Your task to perform on an android device: open app "Airtel Thanks" Image 0: 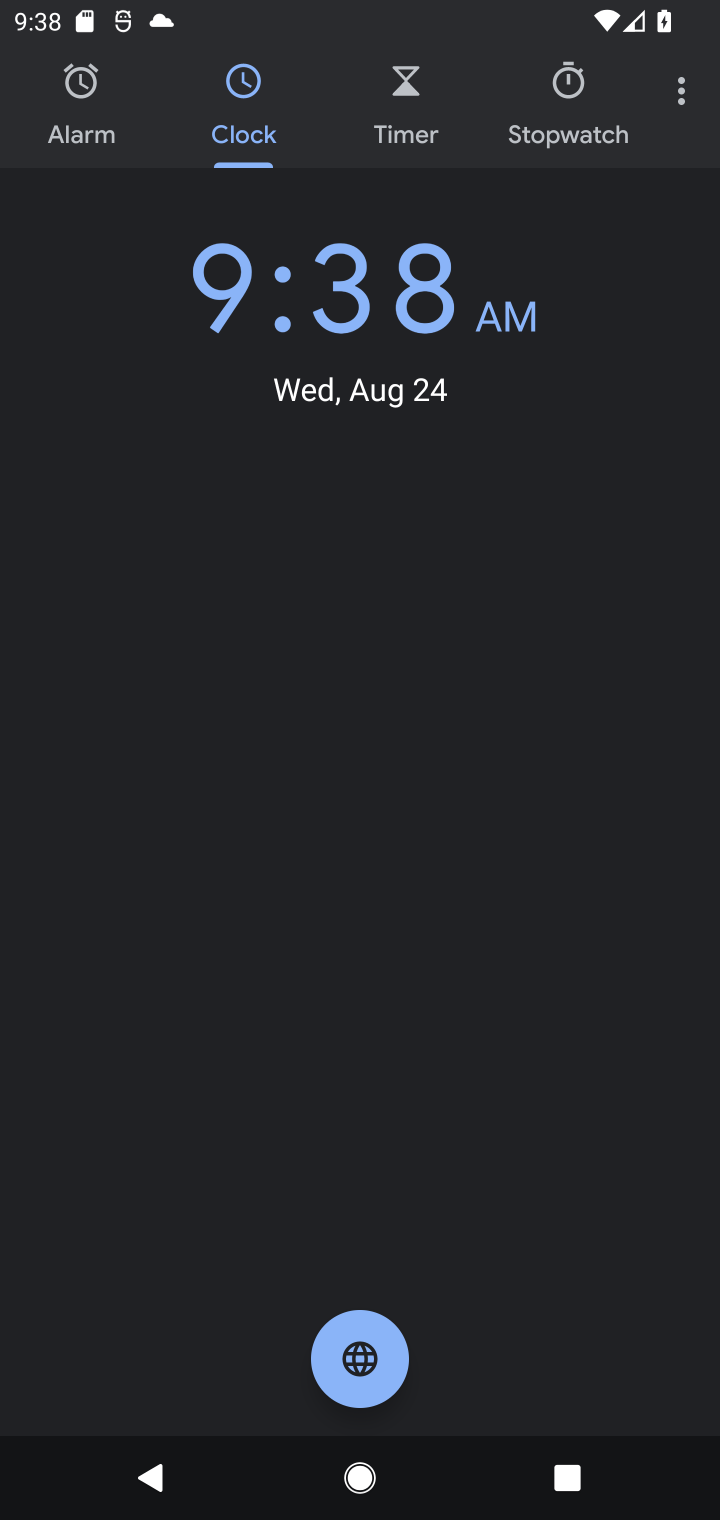
Step 0: press home button
Your task to perform on an android device: open app "Airtel Thanks" Image 1: 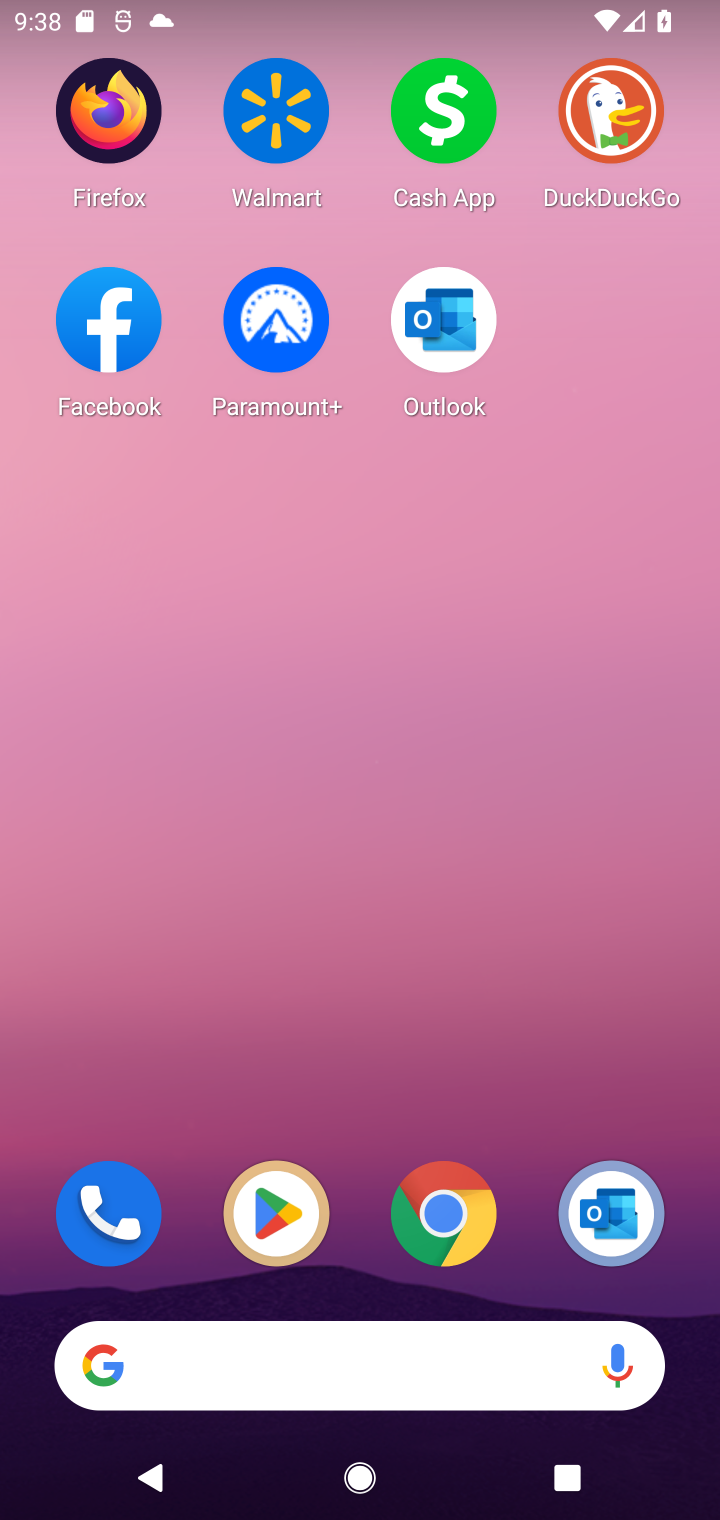
Step 1: click (291, 1220)
Your task to perform on an android device: open app "Airtel Thanks" Image 2: 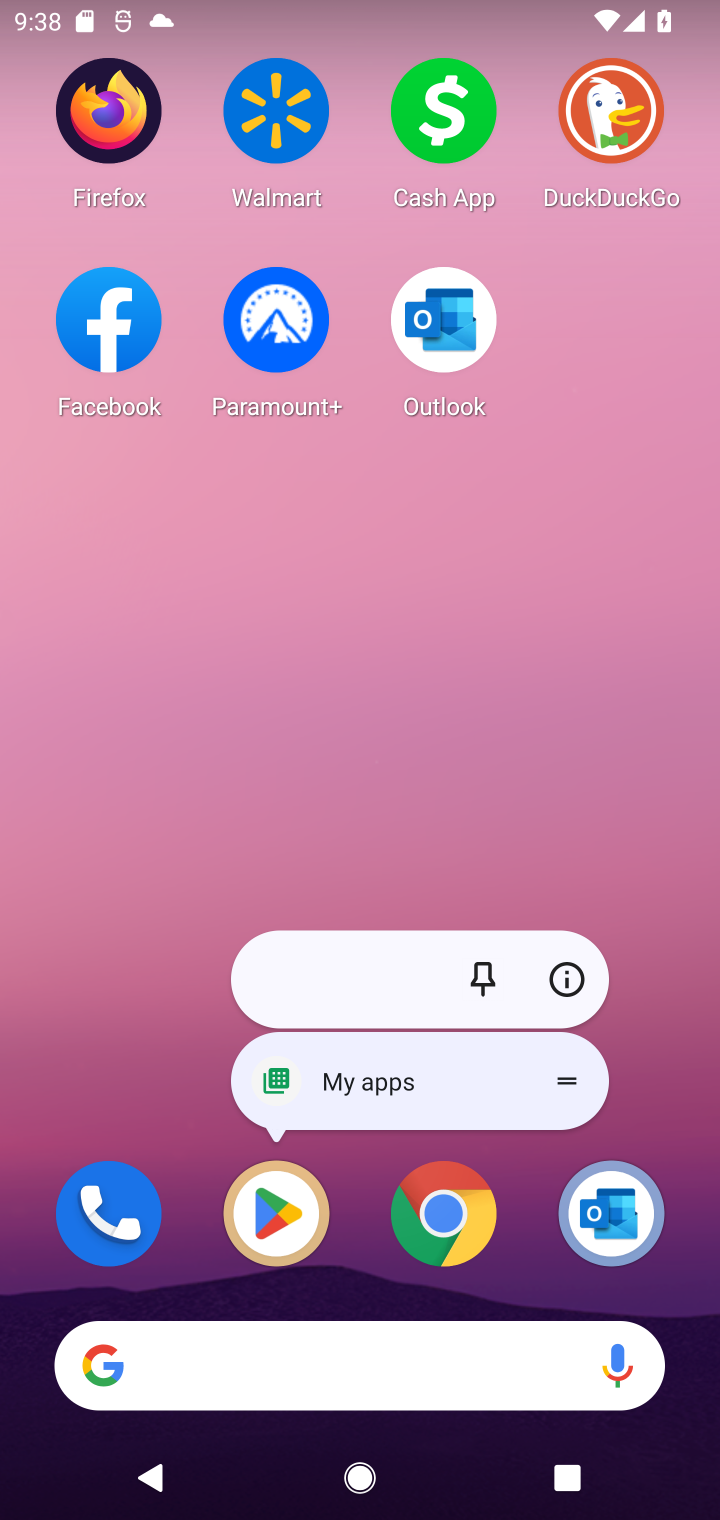
Step 2: click (262, 1207)
Your task to perform on an android device: open app "Airtel Thanks" Image 3: 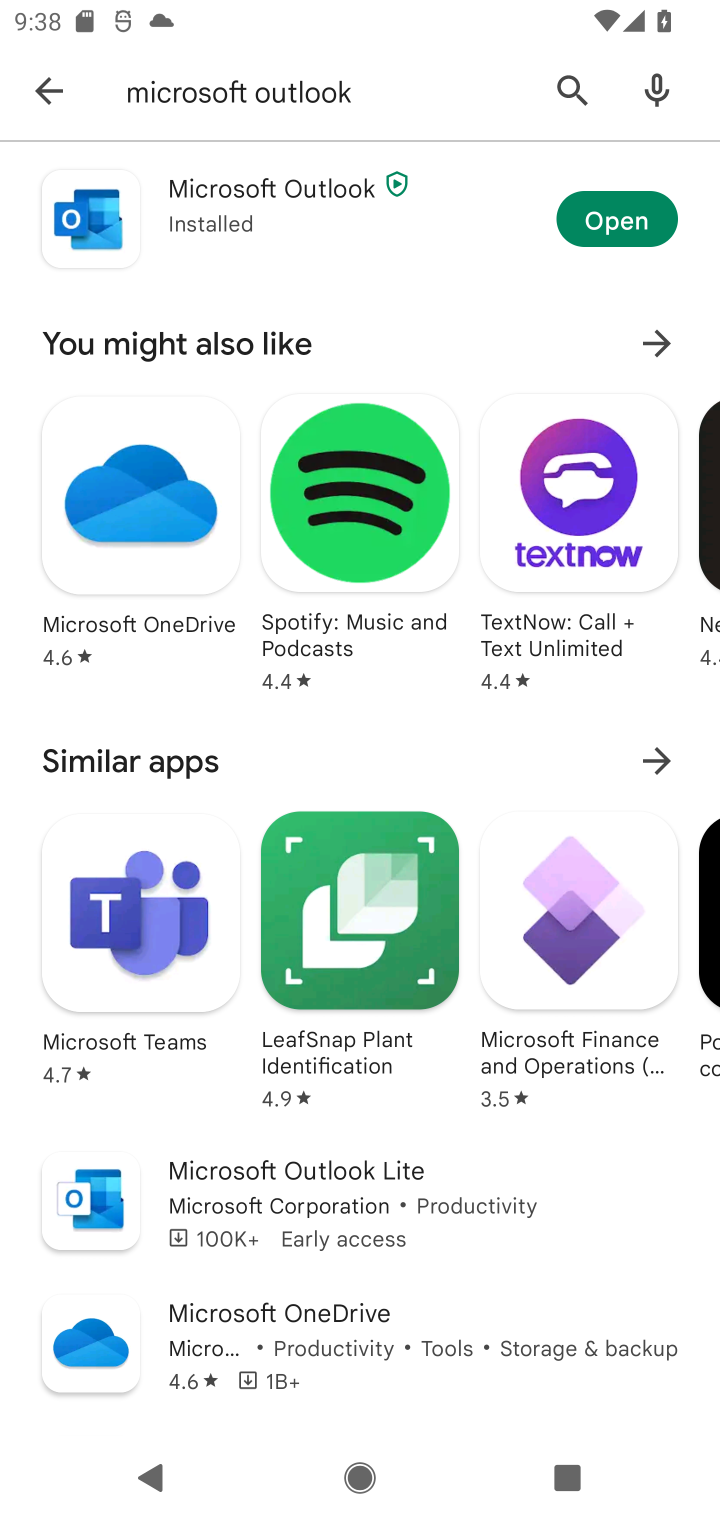
Step 3: click (381, 76)
Your task to perform on an android device: open app "Airtel Thanks" Image 4: 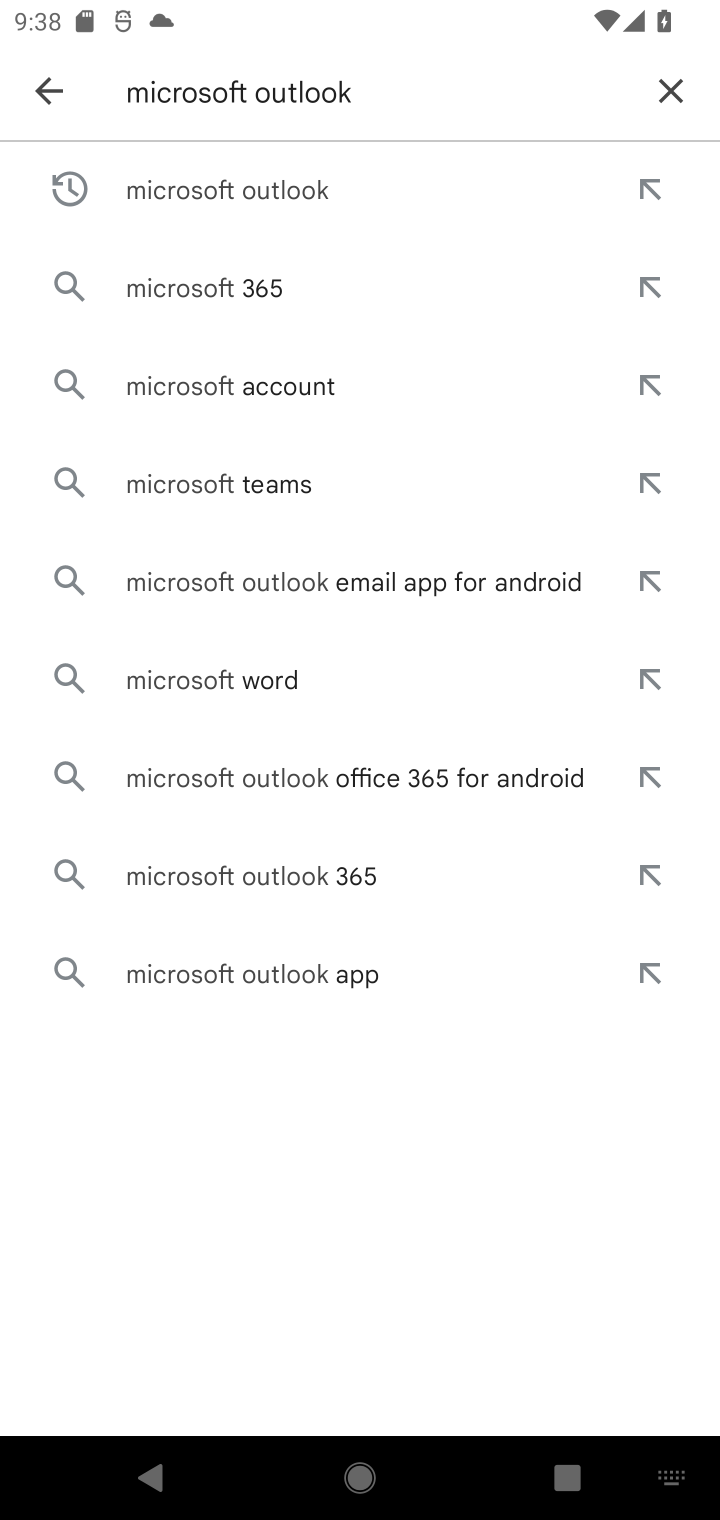
Step 4: click (660, 77)
Your task to perform on an android device: open app "Airtel Thanks" Image 5: 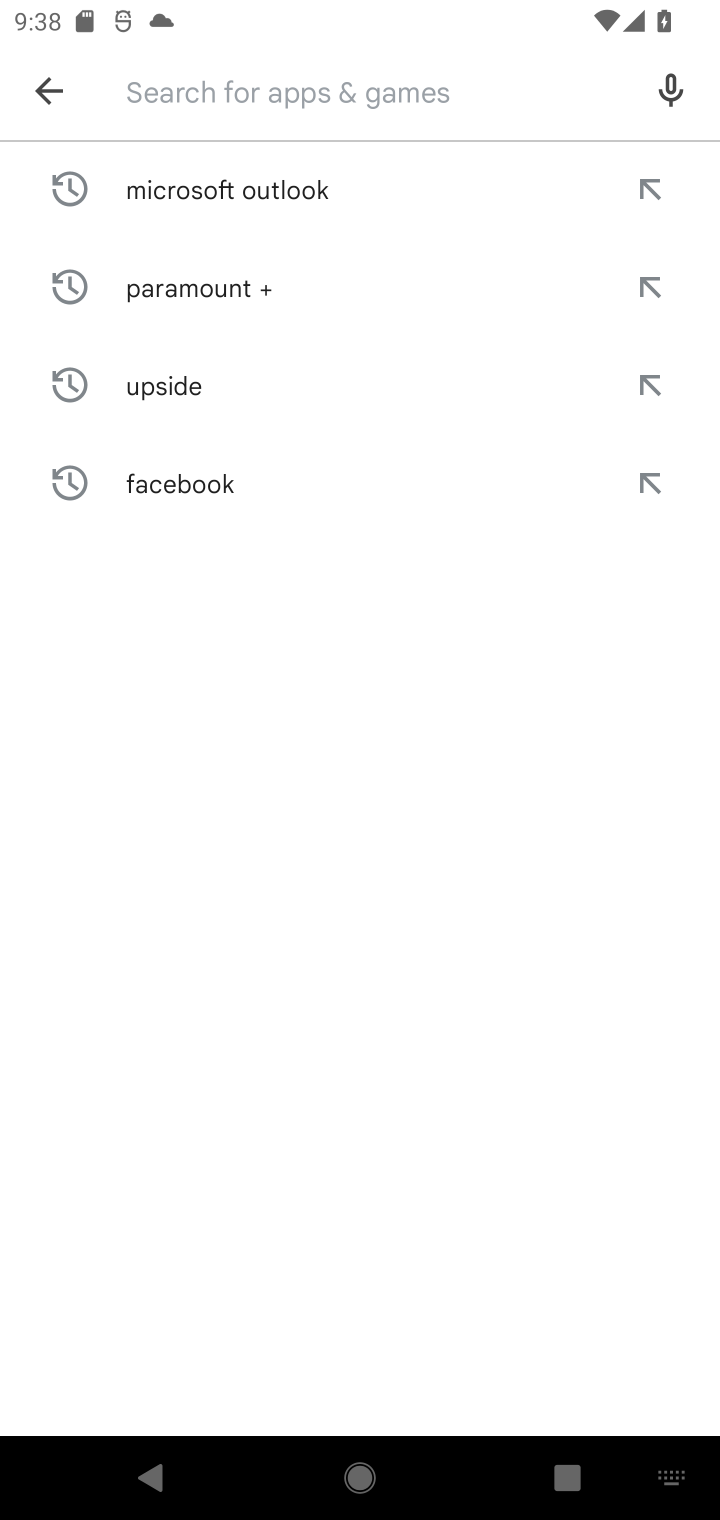
Step 5: type "Airtel Thanks"
Your task to perform on an android device: open app "Airtel Thanks" Image 6: 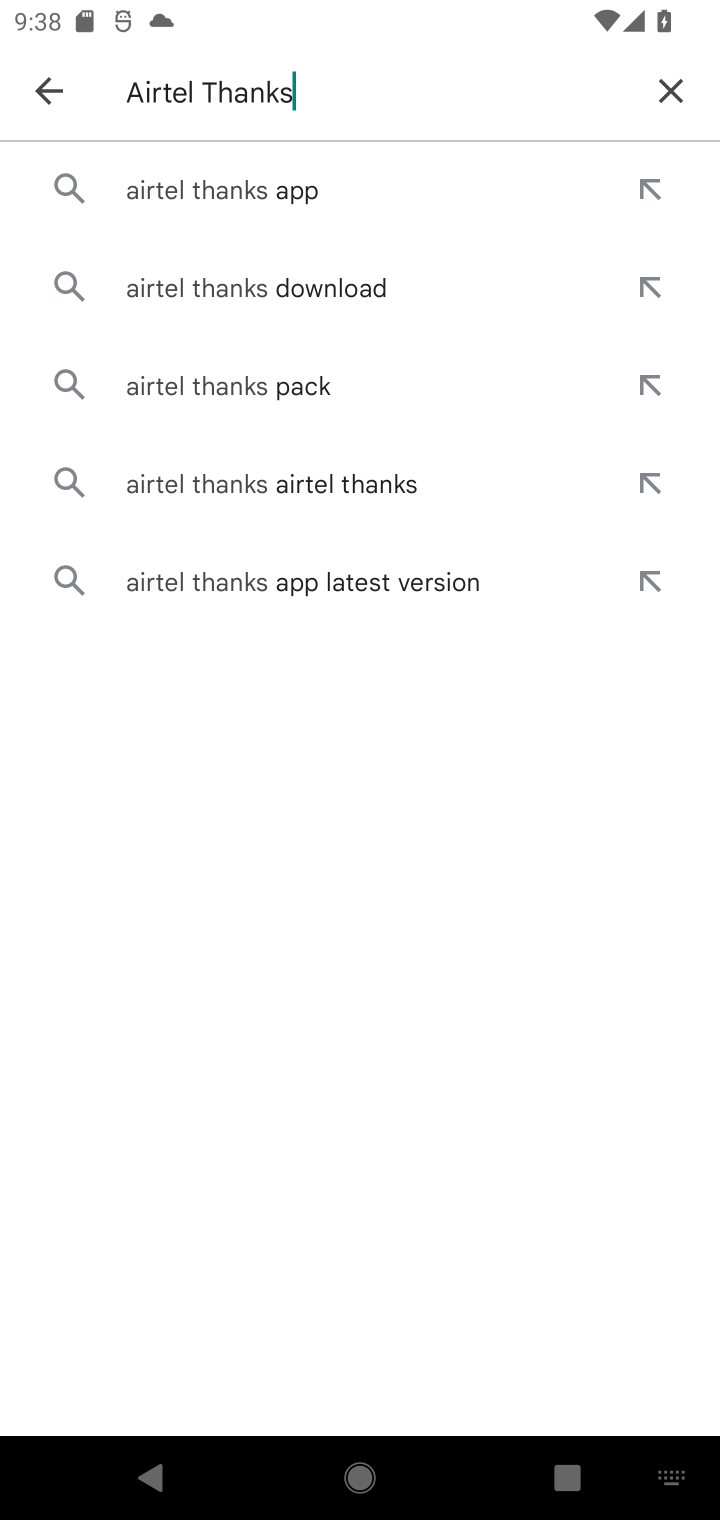
Step 6: click (312, 188)
Your task to perform on an android device: open app "Airtel Thanks" Image 7: 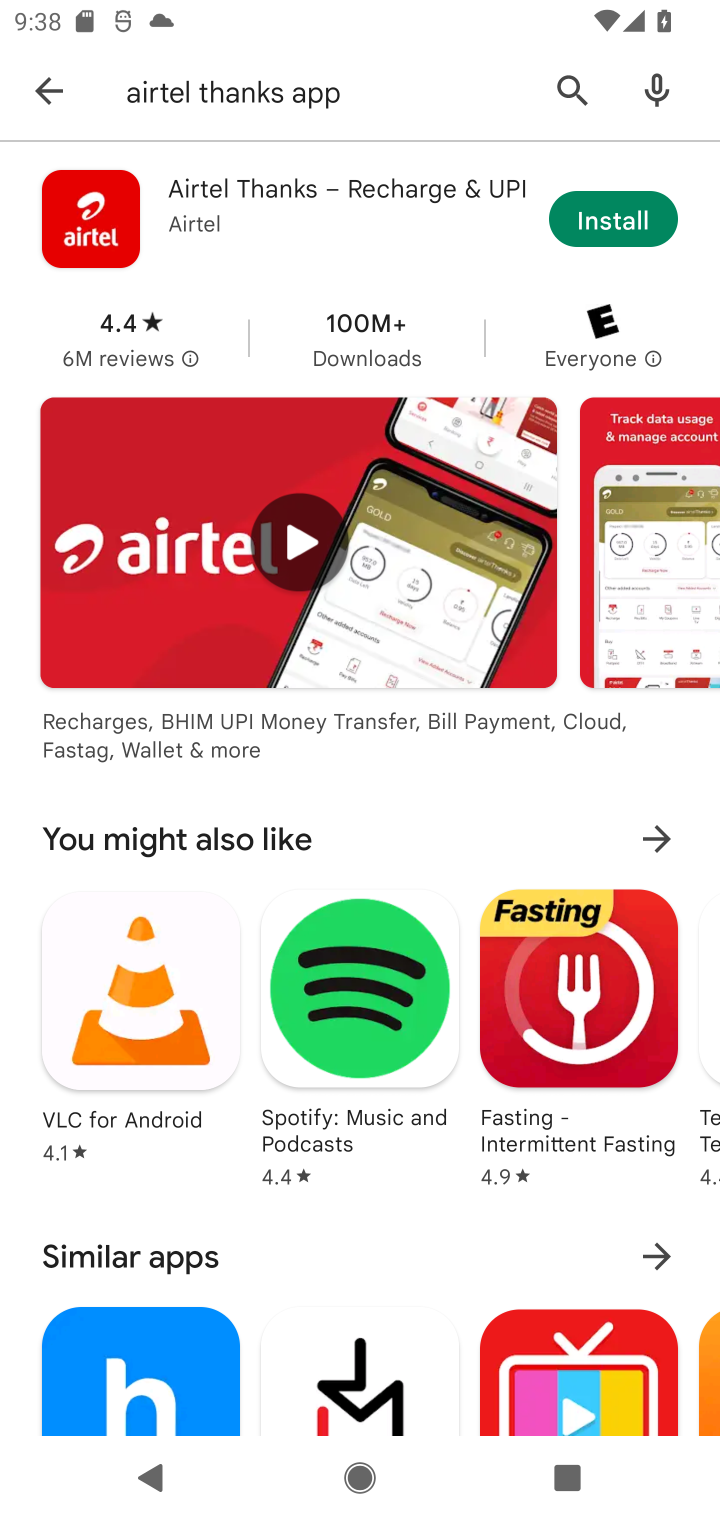
Step 7: task complete